Your task to perform on an android device: turn off data saver in the chrome app Image 0: 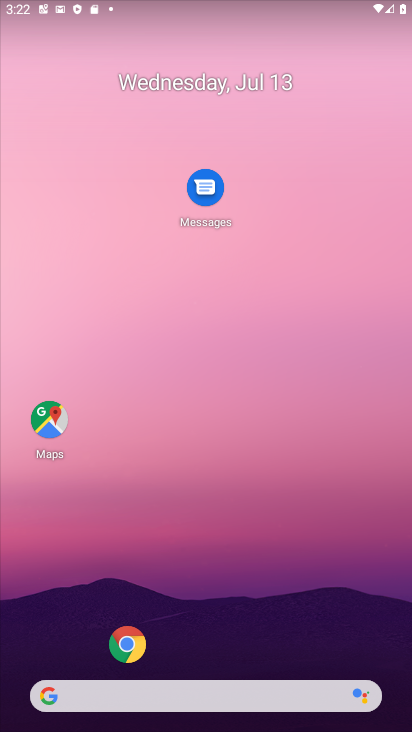
Step 0: drag from (21, 702) to (222, 106)
Your task to perform on an android device: turn off data saver in the chrome app Image 1: 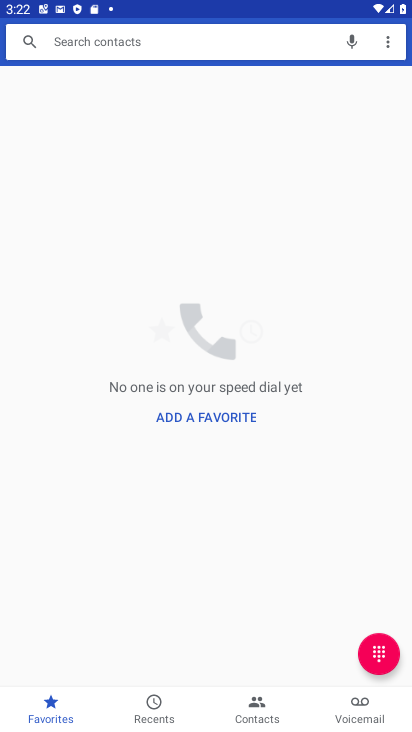
Step 1: press home button
Your task to perform on an android device: turn off data saver in the chrome app Image 2: 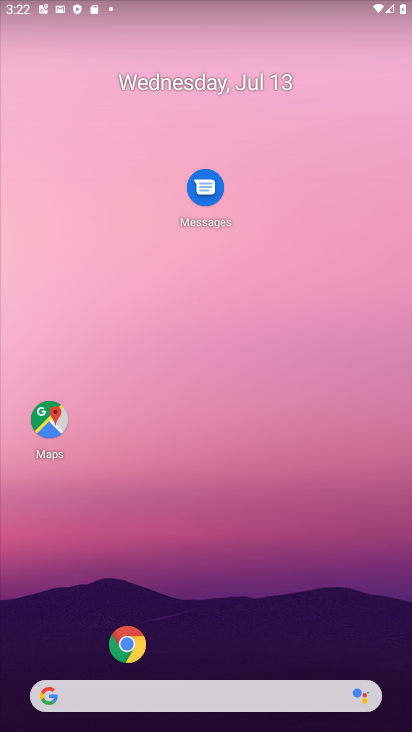
Step 2: click (121, 646)
Your task to perform on an android device: turn off data saver in the chrome app Image 3: 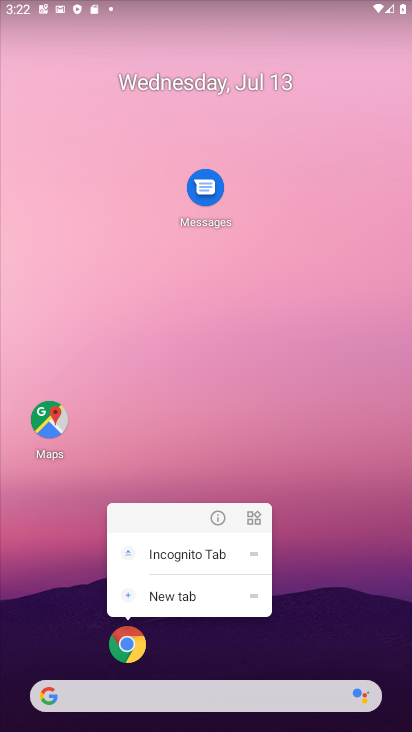
Step 3: click (127, 637)
Your task to perform on an android device: turn off data saver in the chrome app Image 4: 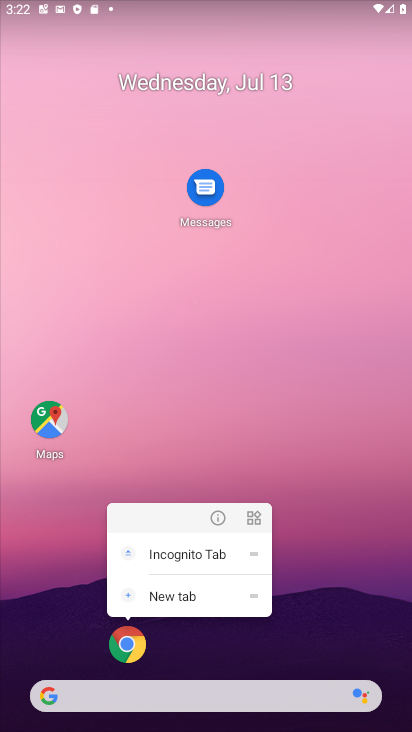
Step 4: task complete